Your task to perform on an android device: delete a single message in the gmail app Image 0: 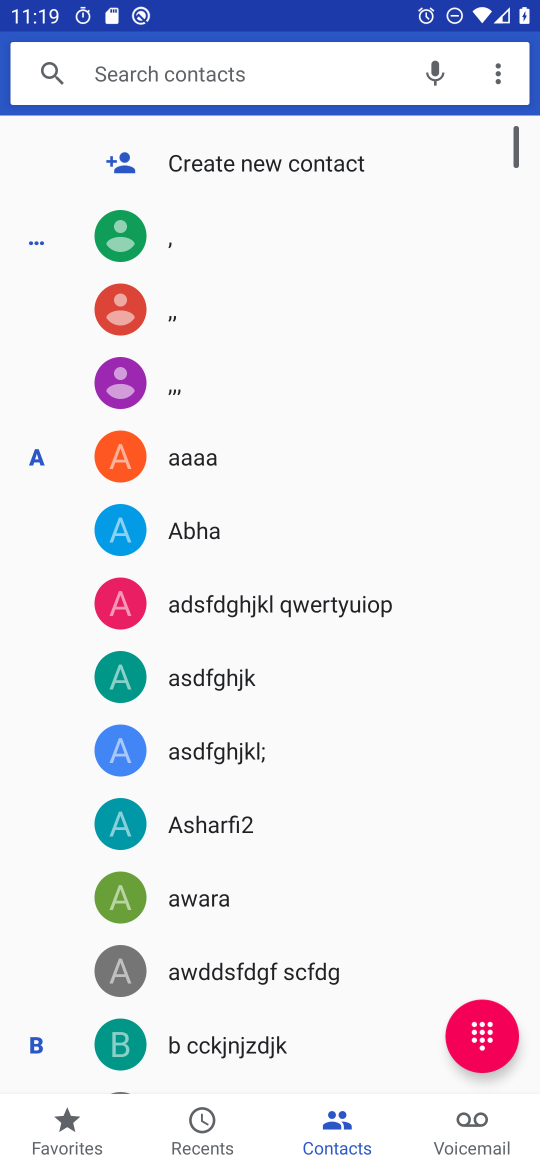
Step 0: press home button
Your task to perform on an android device: delete a single message in the gmail app Image 1: 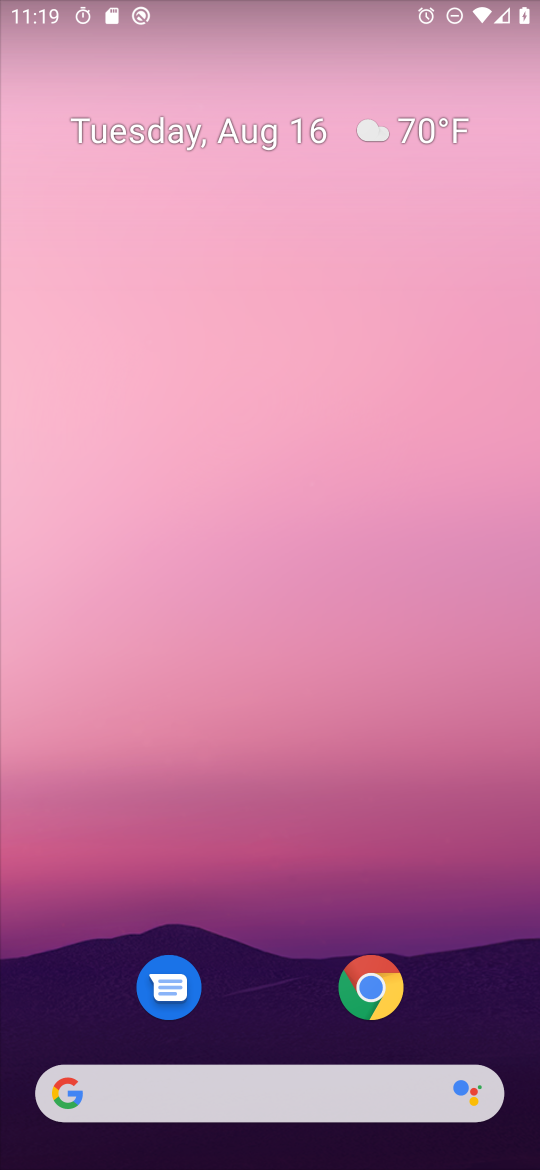
Step 1: click (26, 1132)
Your task to perform on an android device: delete a single message in the gmail app Image 2: 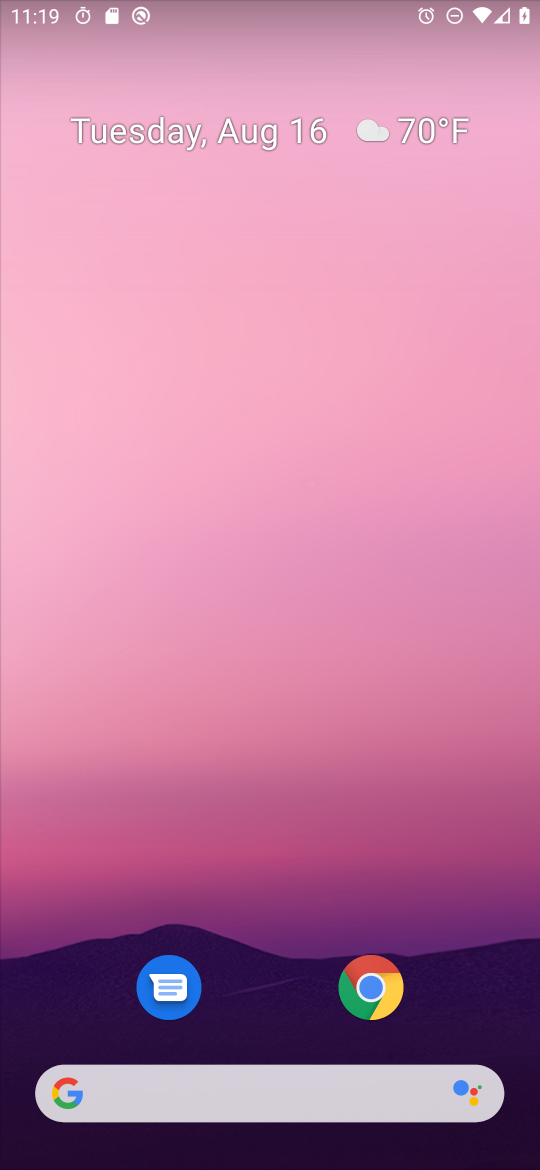
Step 2: drag from (26, 1132) to (230, 296)
Your task to perform on an android device: delete a single message in the gmail app Image 3: 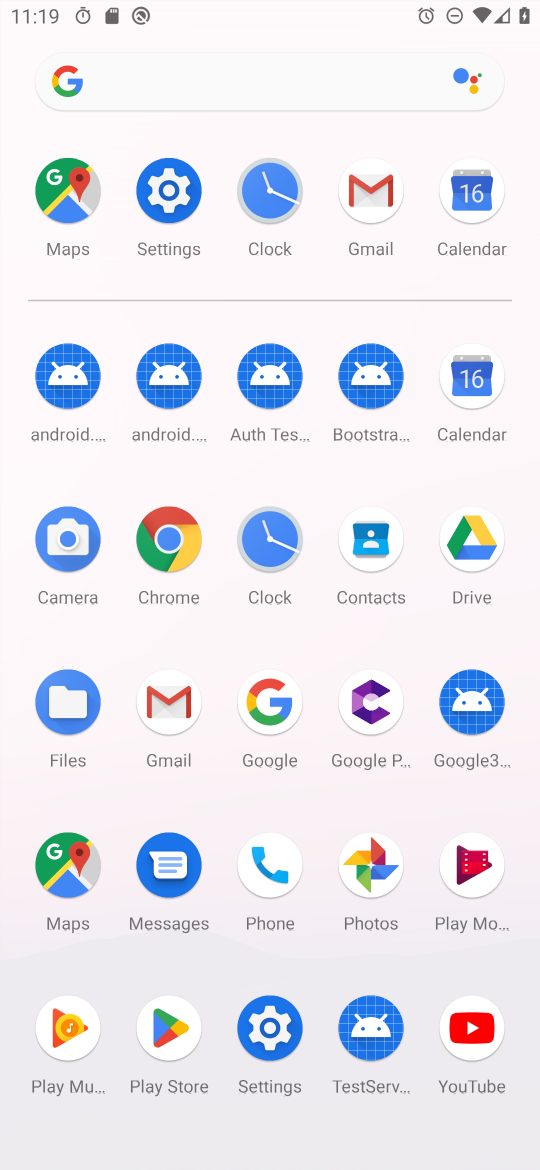
Step 3: click (171, 713)
Your task to perform on an android device: delete a single message in the gmail app Image 4: 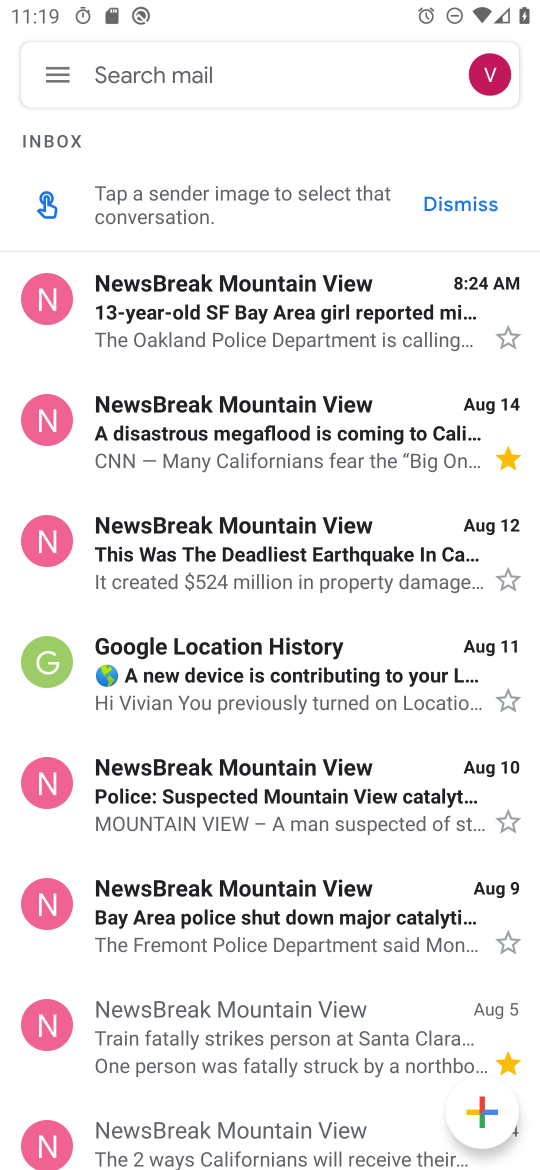
Step 4: click (226, 309)
Your task to perform on an android device: delete a single message in the gmail app Image 5: 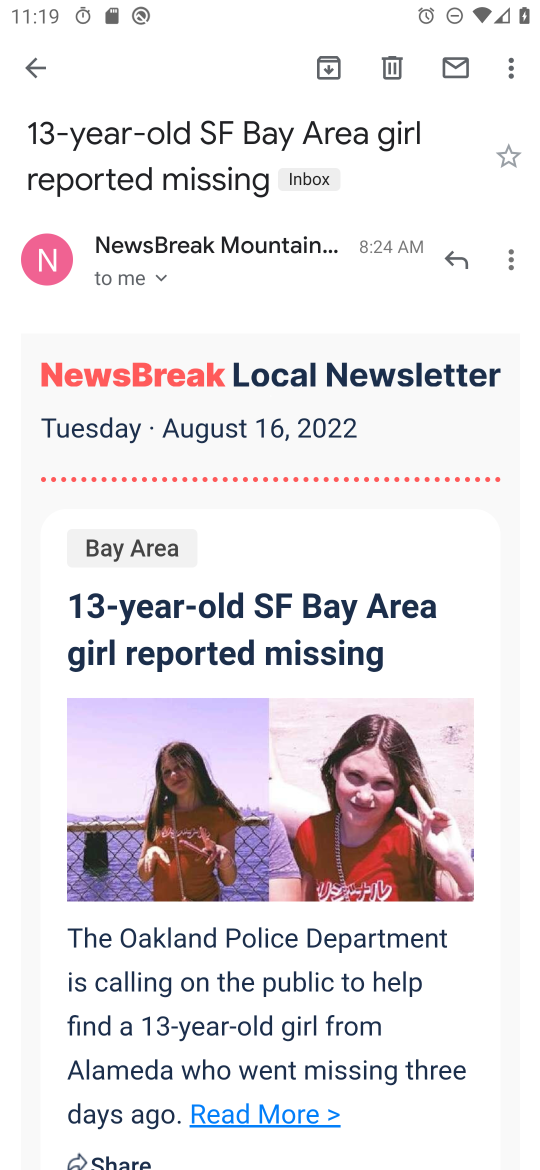
Step 5: click (392, 58)
Your task to perform on an android device: delete a single message in the gmail app Image 6: 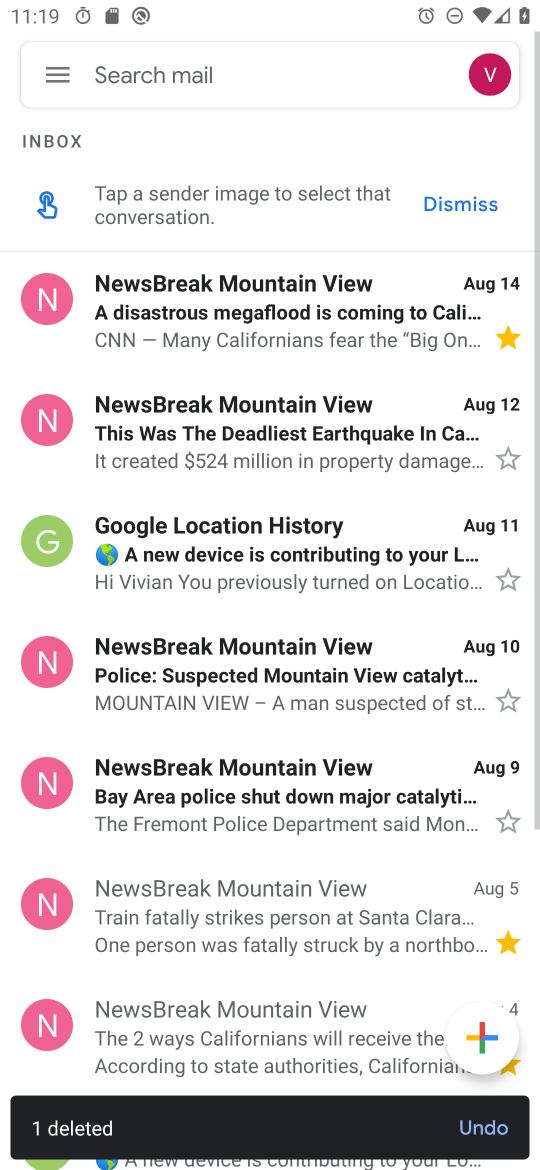
Step 6: task complete